Your task to perform on an android device: Go to battery settings Image 0: 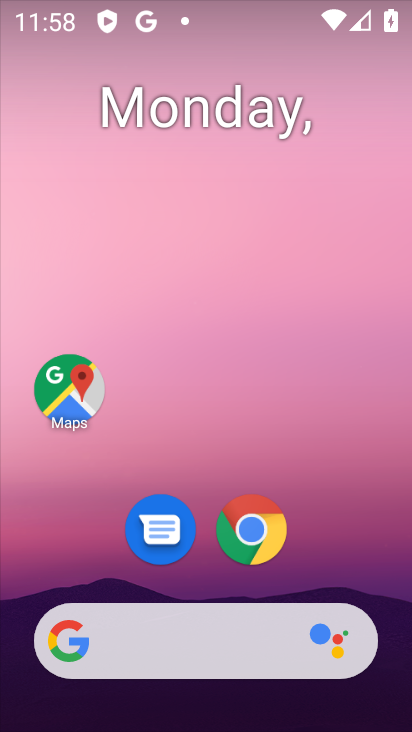
Step 0: drag from (220, 721) to (234, 128)
Your task to perform on an android device: Go to battery settings Image 1: 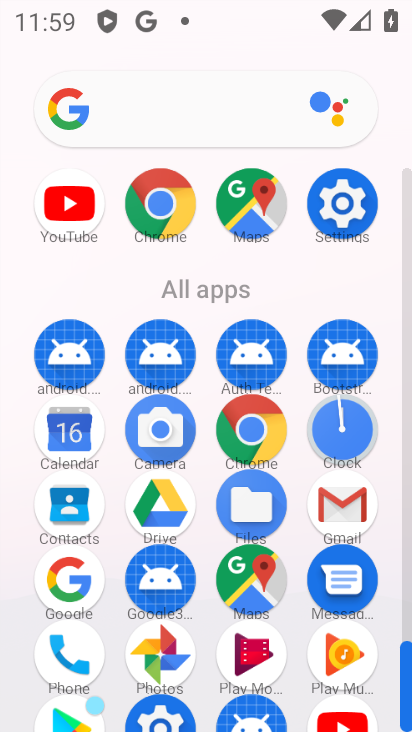
Step 1: click (340, 209)
Your task to perform on an android device: Go to battery settings Image 2: 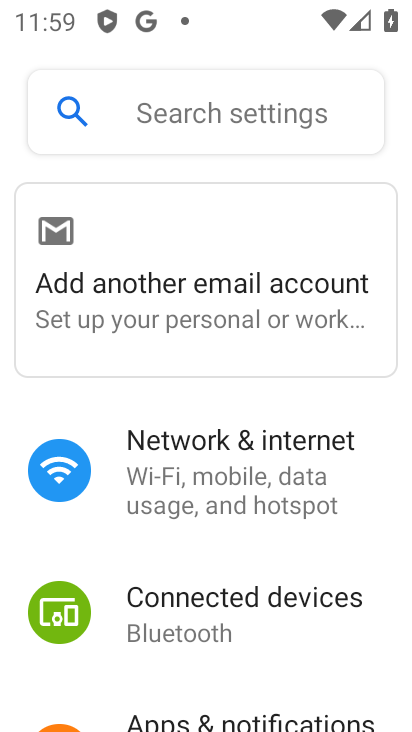
Step 2: drag from (215, 689) to (217, 262)
Your task to perform on an android device: Go to battery settings Image 3: 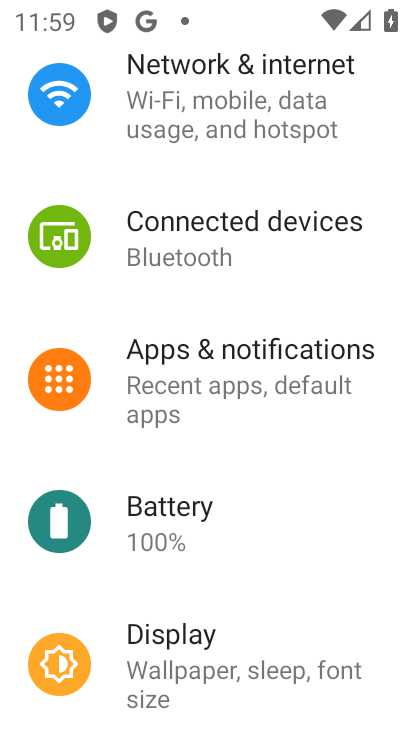
Step 3: click (160, 518)
Your task to perform on an android device: Go to battery settings Image 4: 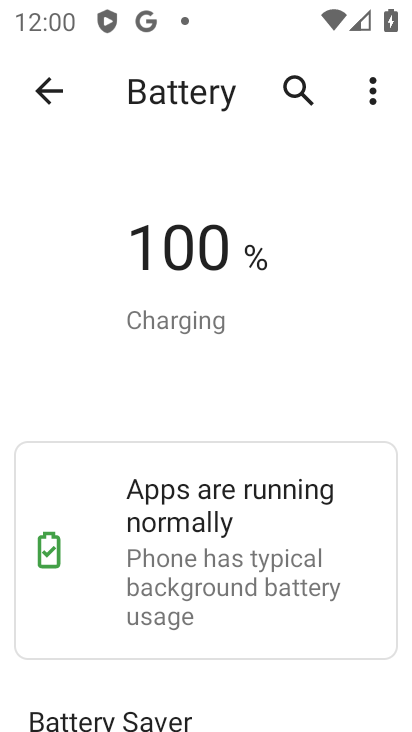
Step 4: task complete